Your task to perform on an android device: change keyboard looks Image 0: 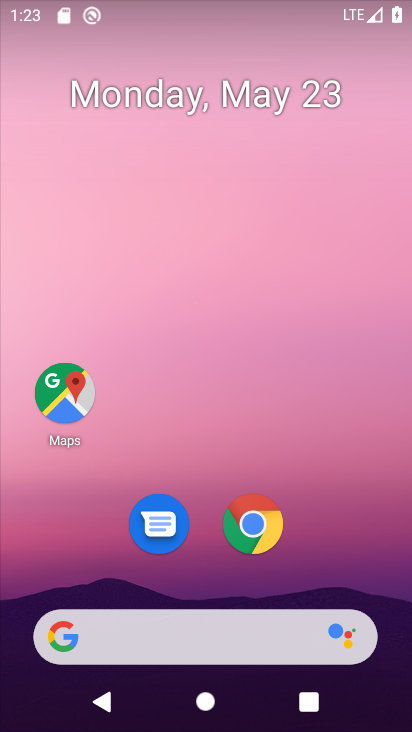
Step 0: drag from (235, 424) to (163, 28)
Your task to perform on an android device: change keyboard looks Image 1: 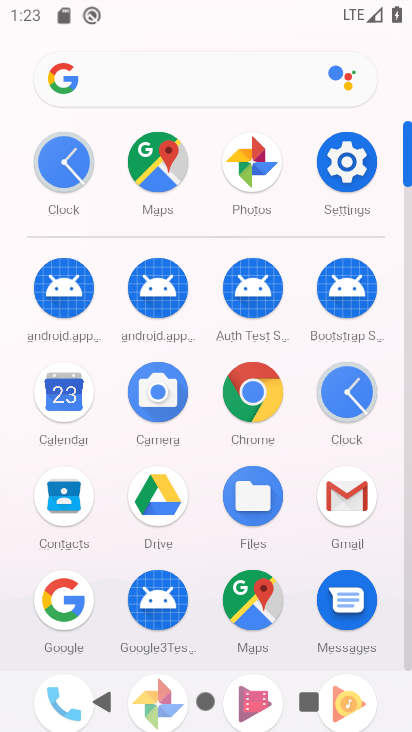
Step 1: click (333, 165)
Your task to perform on an android device: change keyboard looks Image 2: 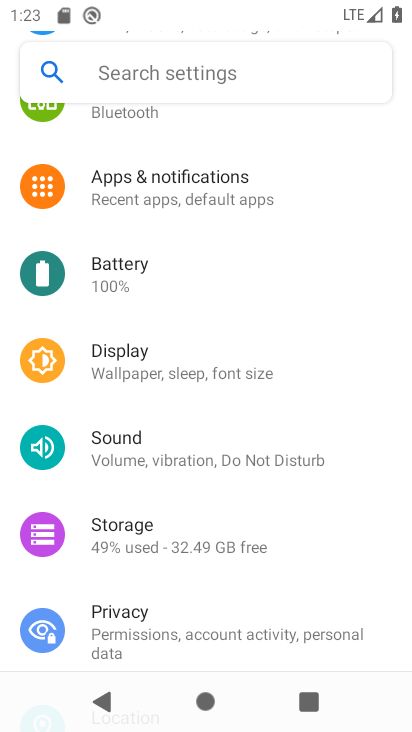
Step 2: drag from (263, 545) to (250, 130)
Your task to perform on an android device: change keyboard looks Image 3: 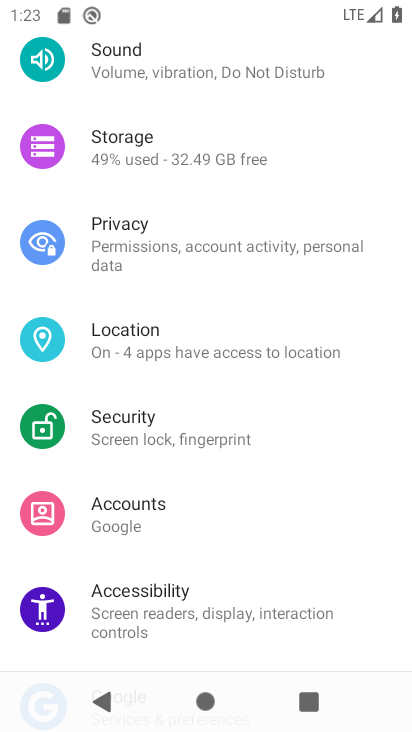
Step 3: drag from (261, 452) to (255, 183)
Your task to perform on an android device: change keyboard looks Image 4: 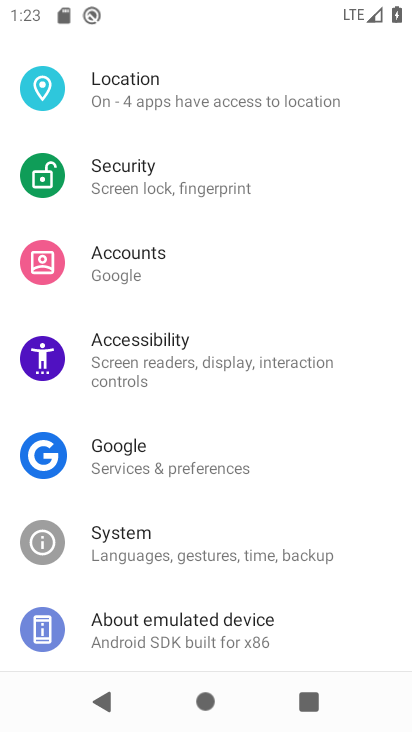
Step 4: click (216, 546)
Your task to perform on an android device: change keyboard looks Image 5: 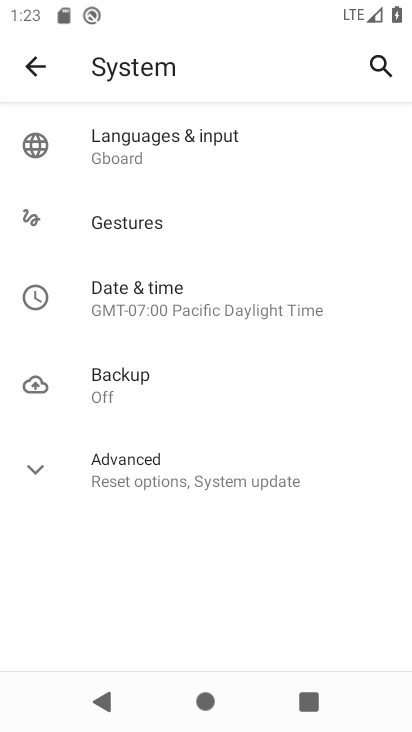
Step 5: click (131, 157)
Your task to perform on an android device: change keyboard looks Image 6: 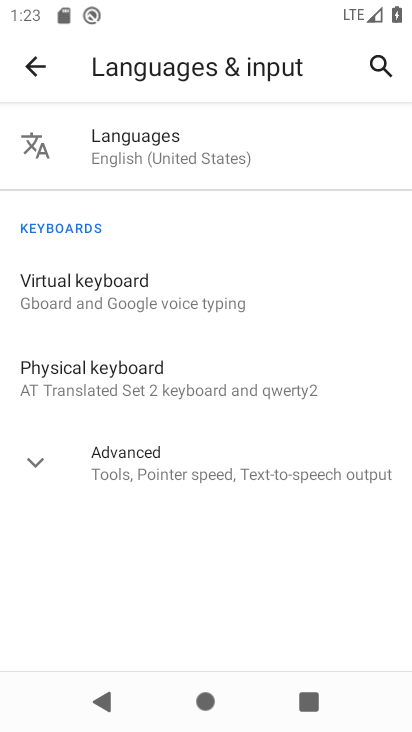
Step 6: click (105, 287)
Your task to perform on an android device: change keyboard looks Image 7: 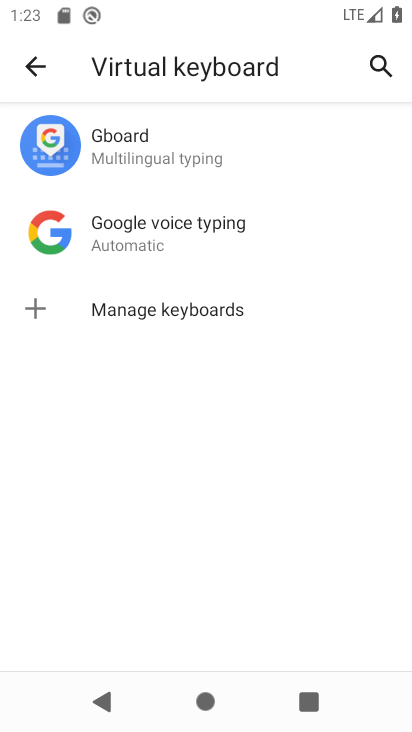
Step 7: click (140, 144)
Your task to perform on an android device: change keyboard looks Image 8: 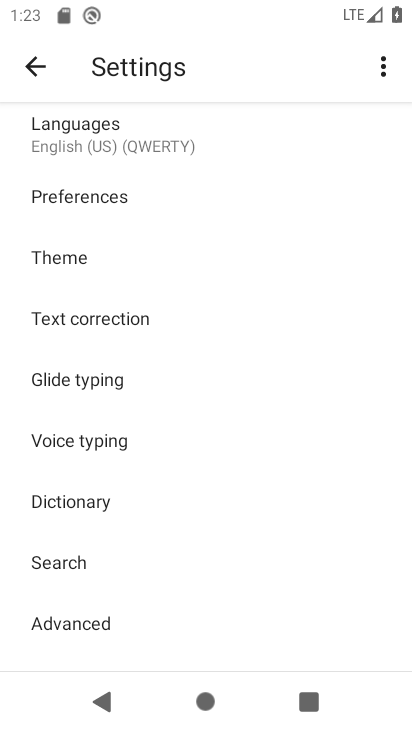
Step 8: click (112, 258)
Your task to perform on an android device: change keyboard looks Image 9: 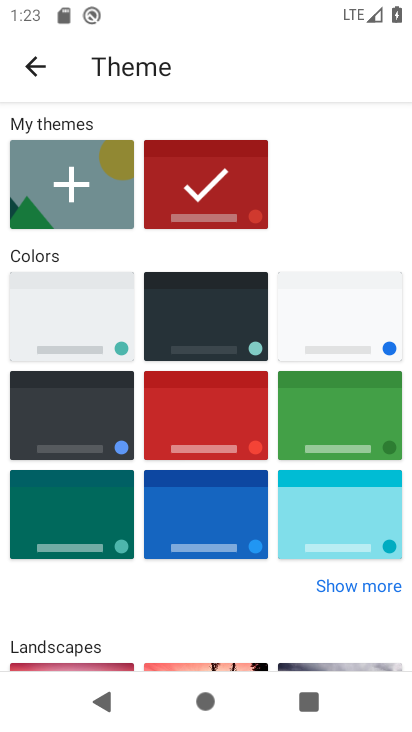
Step 9: click (316, 412)
Your task to perform on an android device: change keyboard looks Image 10: 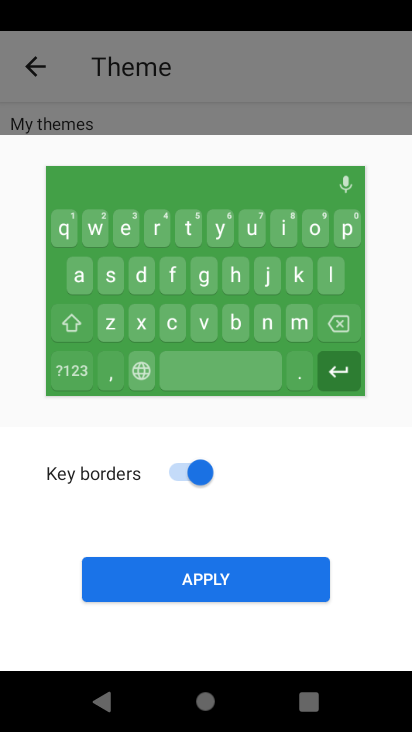
Step 10: click (233, 579)
Your task to perform on an android device: change keyboard looks Image 11: 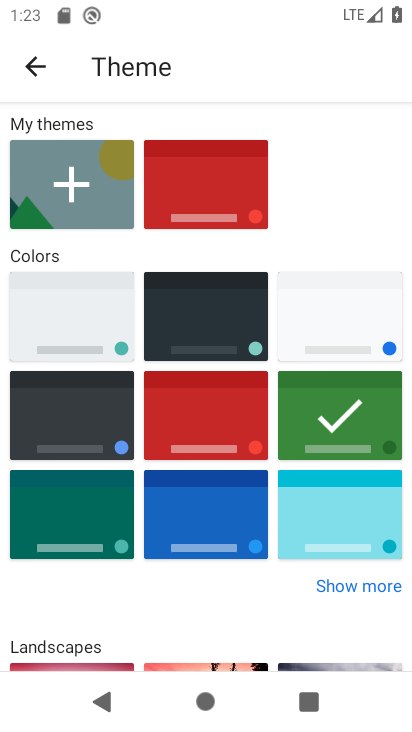
Step 11: task complete